Your task to perform on an android device: Open Reddit.com Image 0: 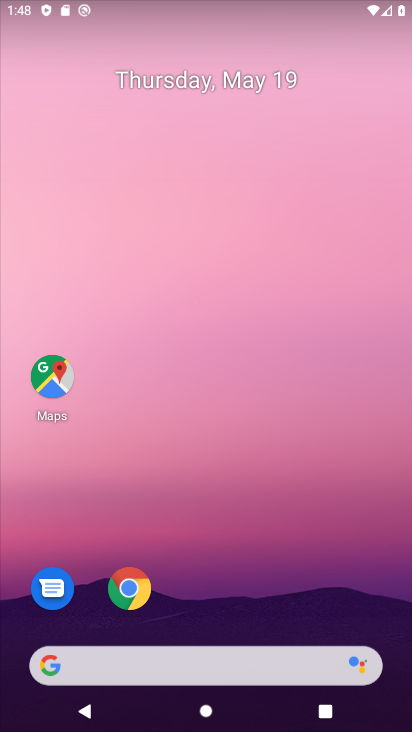
Step 0: click (121, 585)
Your task to perform on an android device: Open Reddit.com Image 1: 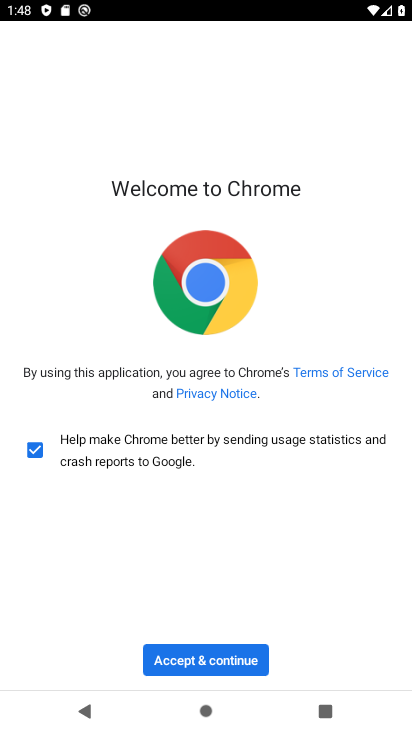
Step 1: click (207, 661)
Your task to perform on an android device: Open Reddit.com Image 2: 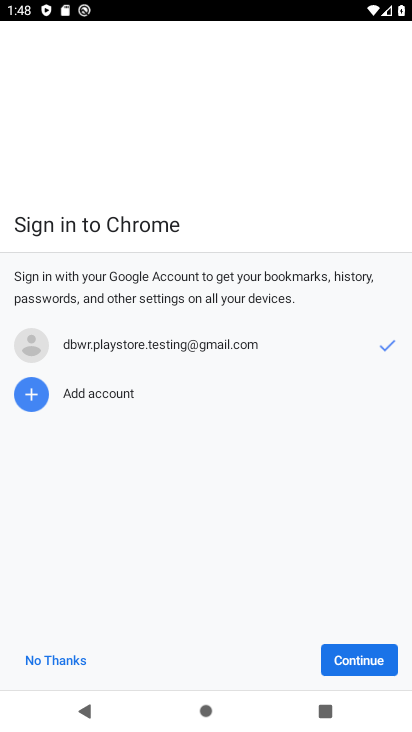
Step 2: click (68, 657)
Your task to perform on an android device: Open Reddit.com Image 3: 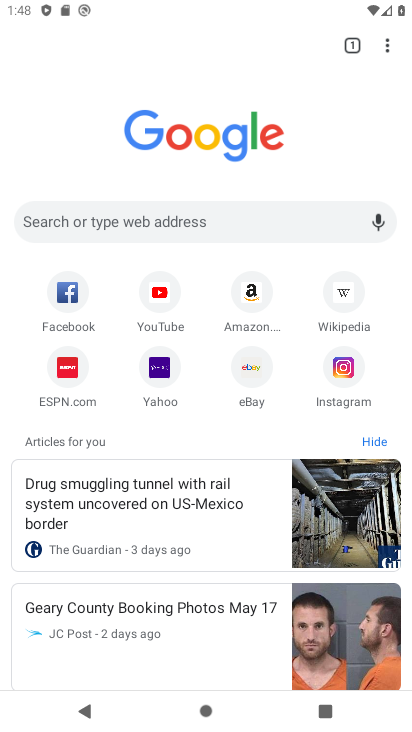
Step 3: click (119, 220)
Your task to perform on an android device: Open Reddit.com Image 4: 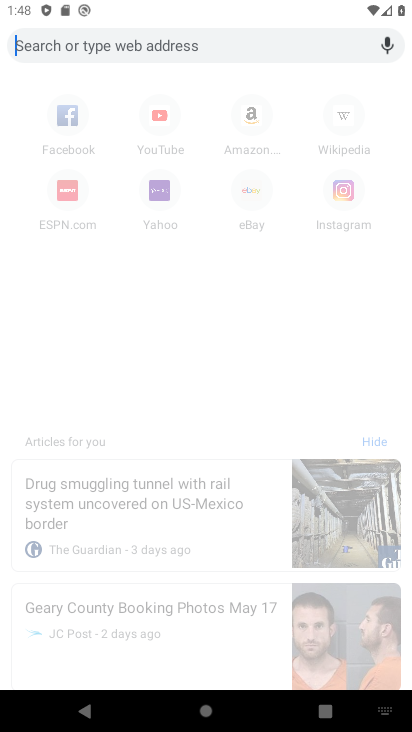
Step 4: type "reddit.com"
Your task to perform on an android device: Open Reddit.com Image 5: 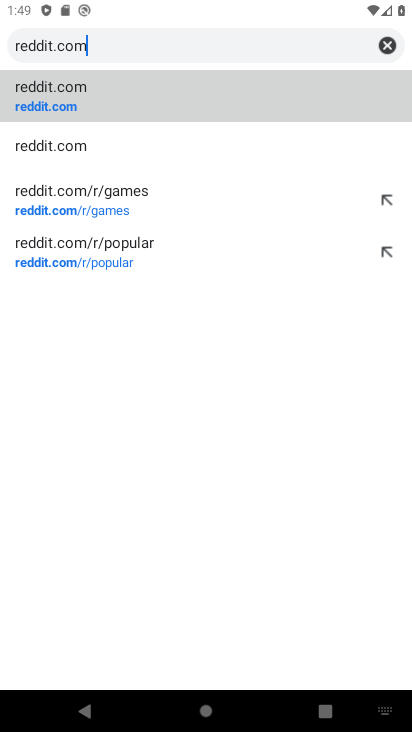
Step 5: click (74, 102)
Your task to perform on an android device: Open Reddit.com Image 6: 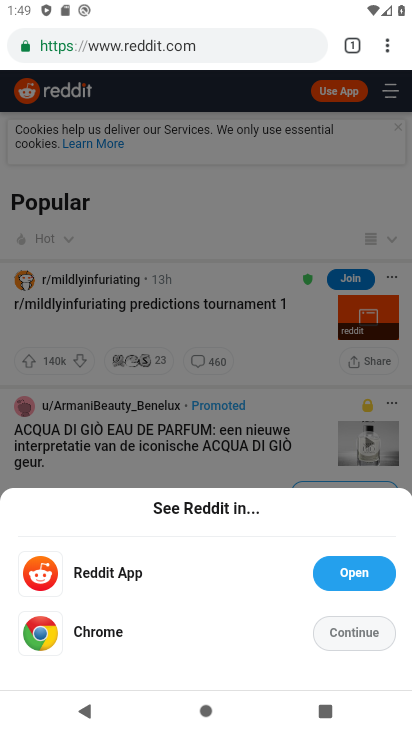
Step 6: task complete